Your task to perform on an android device: open chrome and create a bookmark for the current page Image 0: 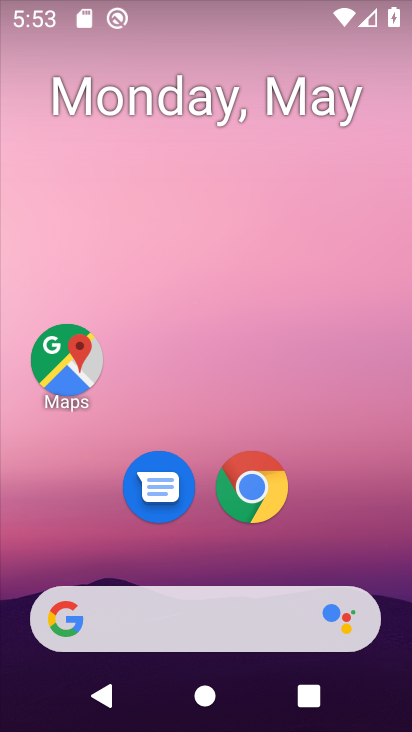
Step 0: click (249, 479)
Your task to perform on an android device: open chrome and create a bookmark for the current page Image 1: 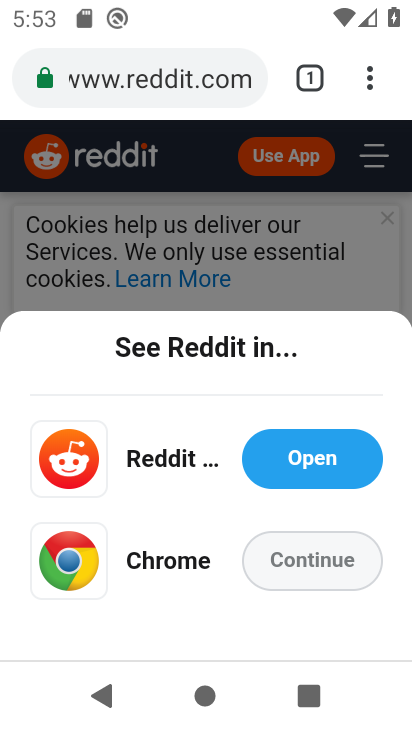
Step 1: click (309, 556)
Your task to perform on an android device: open chrome and create a bookmark for the current page Image 2: 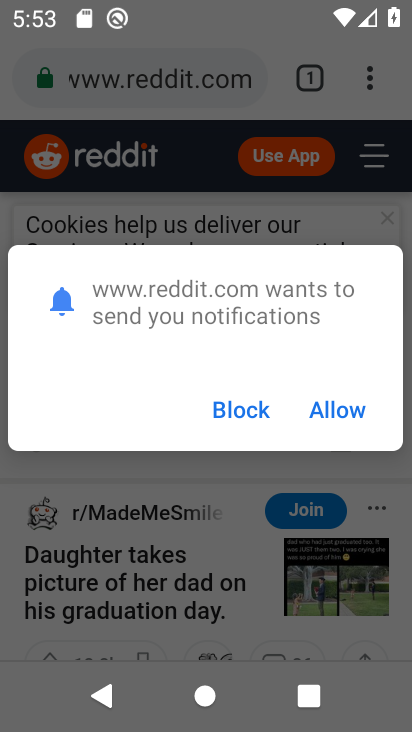
Step 2: click (349, 404)
Your task to perform on an android device: open chrome and create a bookmark for the current page Image 3: 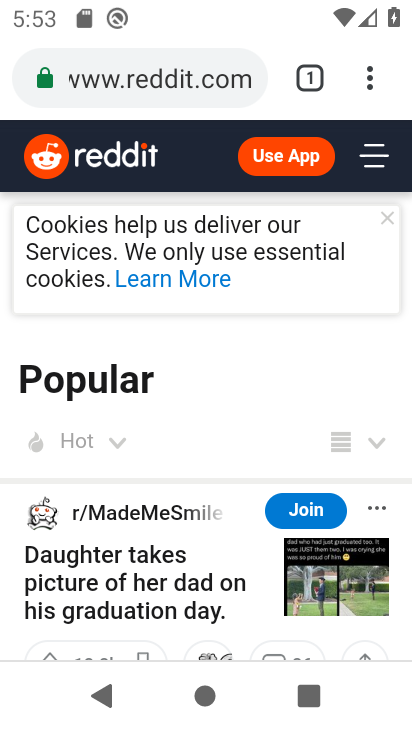
Step 3: click (371, 84)
Your task to perform on an android device: open chrome and create a bookmark for the current page Image 4: 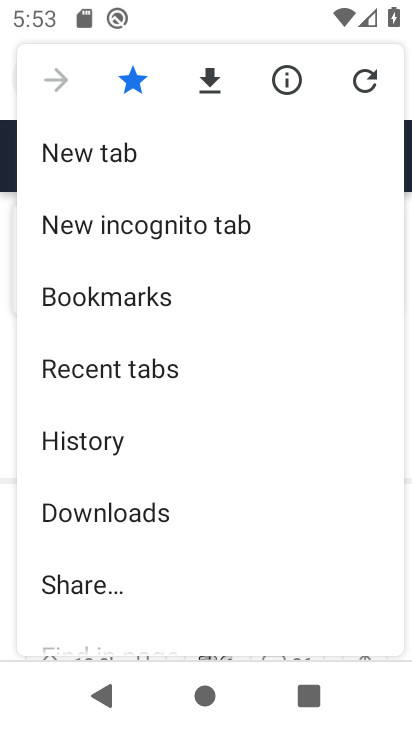
Step 4: task complete